Your task to perform on an android device: open a new tab in the chrome app Image 0: 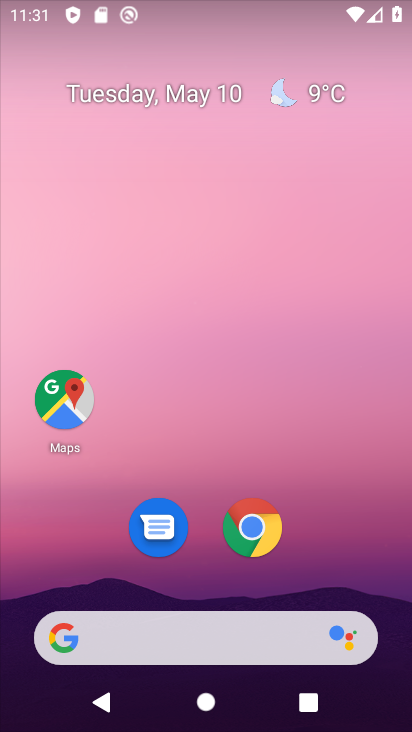
Step 0: click (249, 525)
Your task to perform on an android device: open a new tab in the chrome app Image 1: 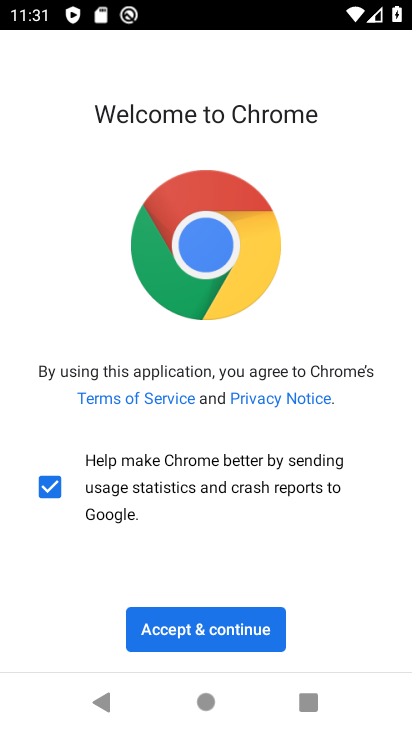
Step 1: click (215, 630)
Your task to perform on an android device: open a new tab in the chrome app Image 2: 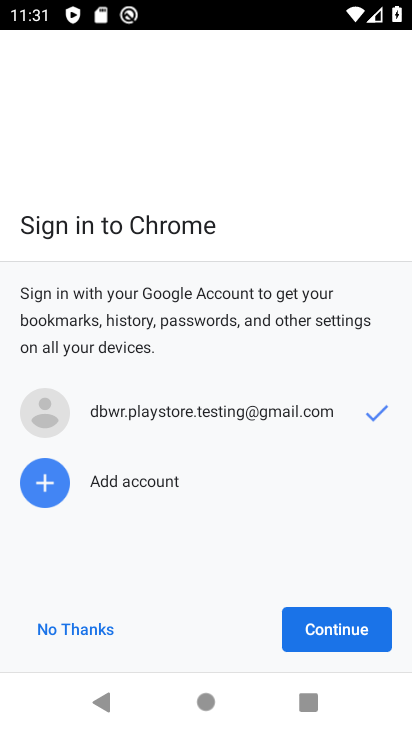
Step 2: click (334, 634)
Your task to perform on an android device: open a new tab in the chrome app Image 3: 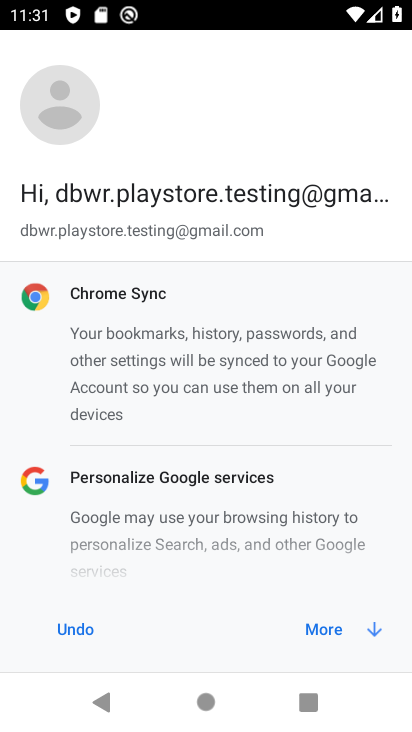
Step 3: click (325, 627)
Your task to perform on an android device: open a new tab in the chrome app Image 4: 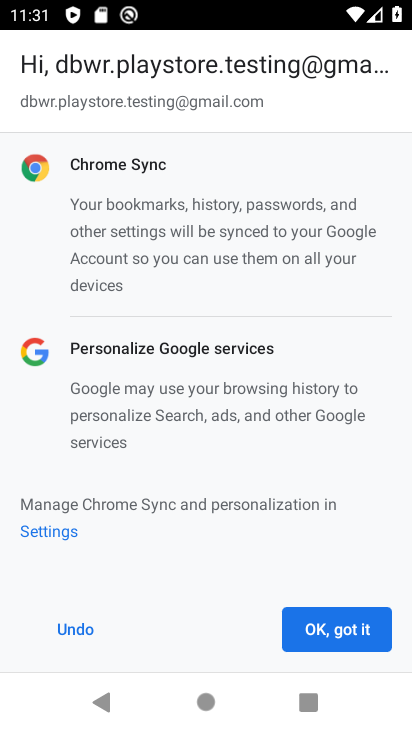
Step 4: click (325, 627)
Your task to perform on an android device: open a new tab in the chrome app Image 5: 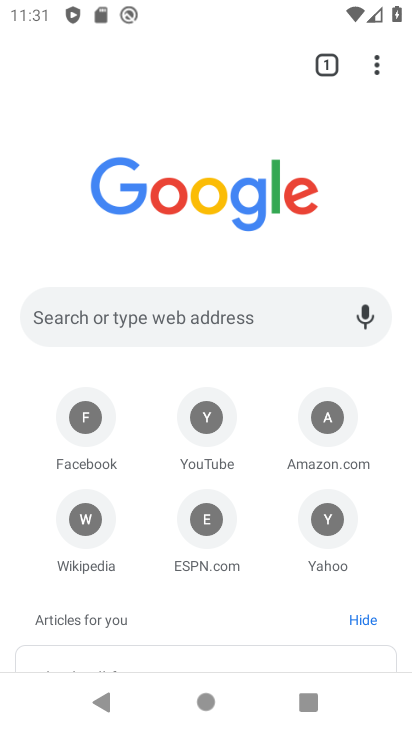
Step 5: click (376, 69)
Your task to perform on an android device: open a new tab in the chrome app Image 6: 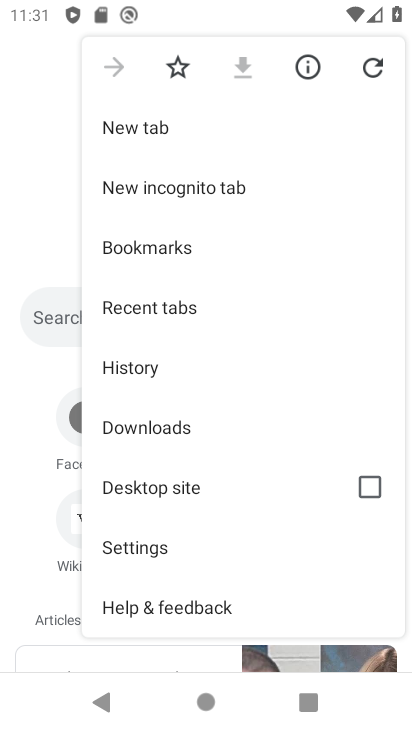
Step 6: click (146, 129)
Your task to perform on an android device: open a new tab in the chrome app Image 7: 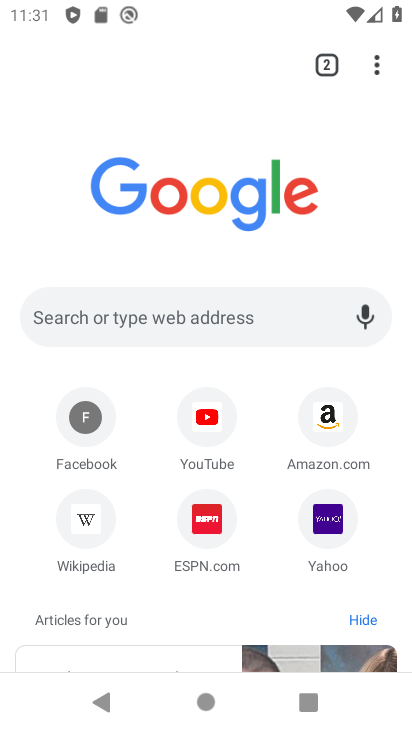
Step 7: task complete